Your task to perform on an android device: Open Google Chrome and click the shortcut for Amazon.com Image 0: 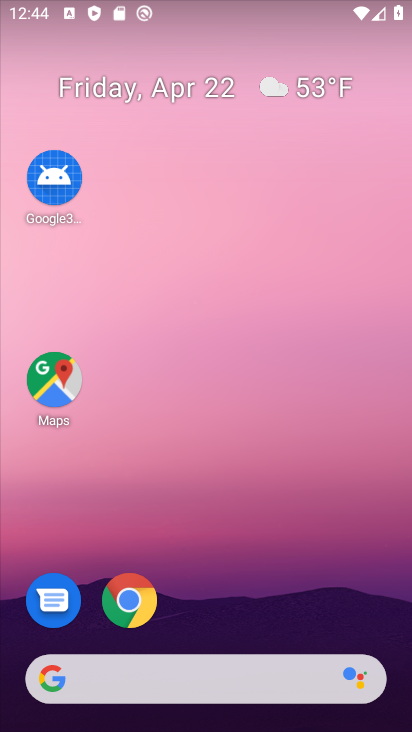
Step 0: click (136, 598)
Your task to perform on an android device: Open Google Chrome and click the shortcut for Amazon.com Image 1: 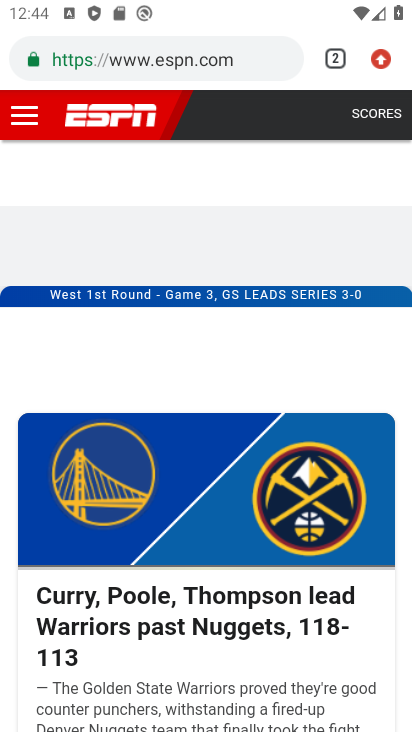
Step 1: click (383, 63)
Your task to perform on an android device: Open Google Chrome and click the shortcut for Amazon.com Image 2: 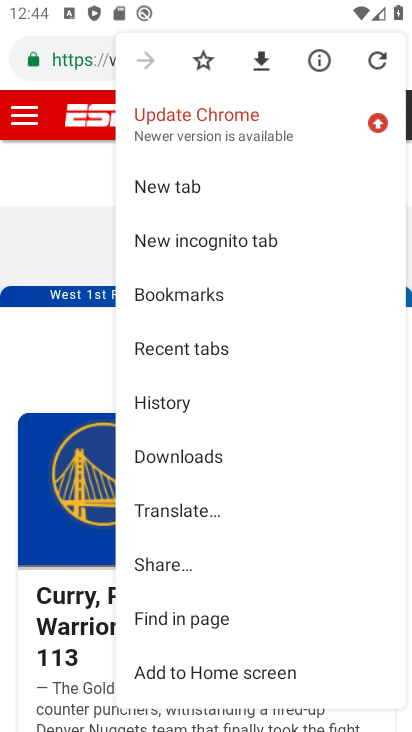
Step 2: click (58, 194)
Your task to perform on an android device: Open Google Chrome and click the shortcut for Amazon.com Image 3: 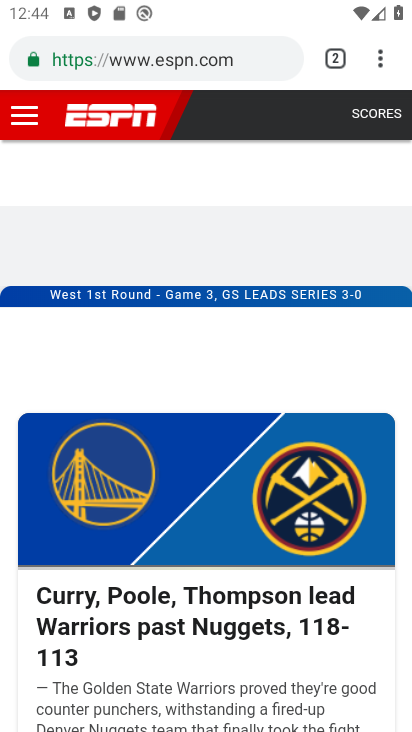
Step 3: click (320, 58)
Your task to perform on an android device: Open Google Chrome and click the shortcut for Amazon.com Image 4: 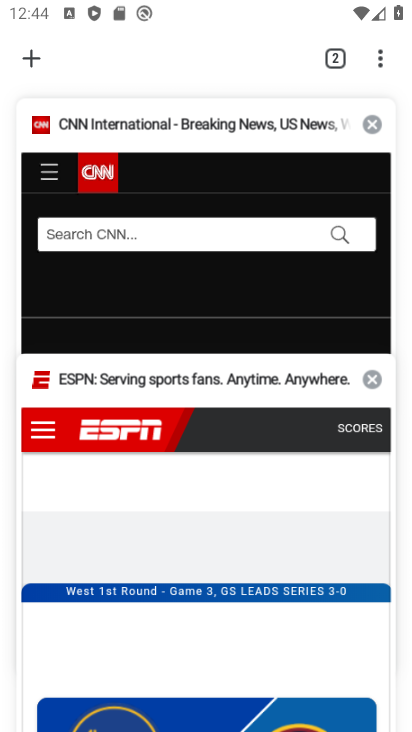
Step 4: click (32, 53)
Your task to perform on an android device: Open Google Chrome and click the shortcut for Amazon.com Image 5: 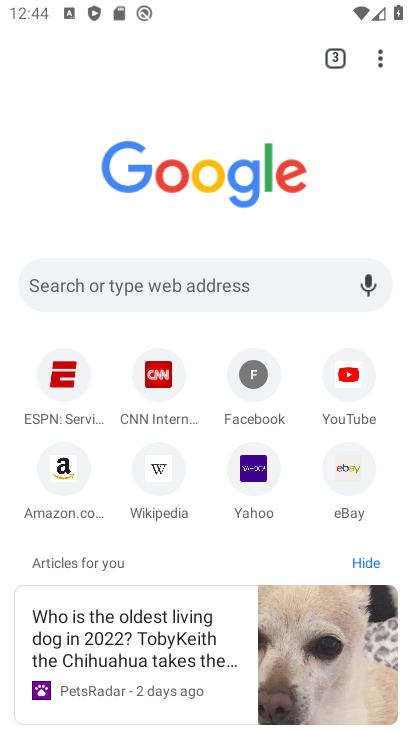
Step 5: click (57, 469)
Your task to perform on an android device: Open Google Chrome and click the shortcut for Amazon.com Image 6: 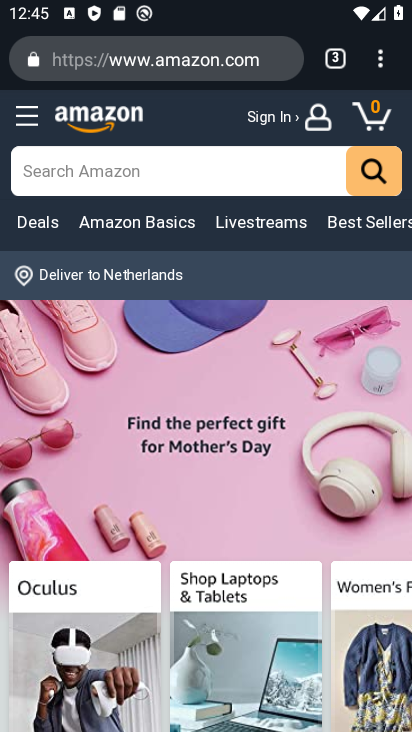
Step 6: task complete